Your task to perform on an android device: Is it going to rain tomorrow? Image 0: 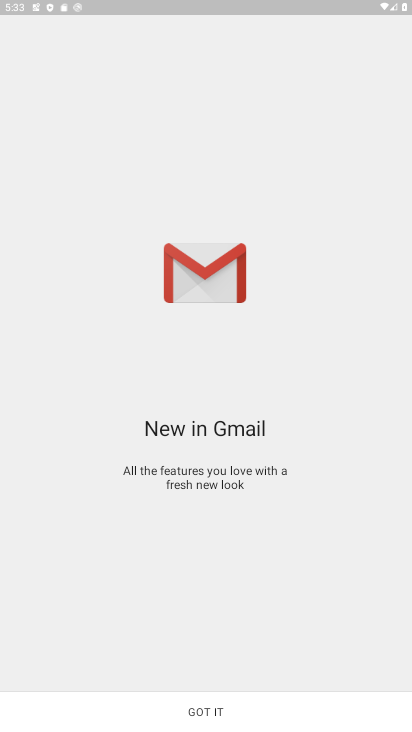
Step 0: press home button
Your task to perform on an android device: Is it going to rain tomorrow? Image 1: 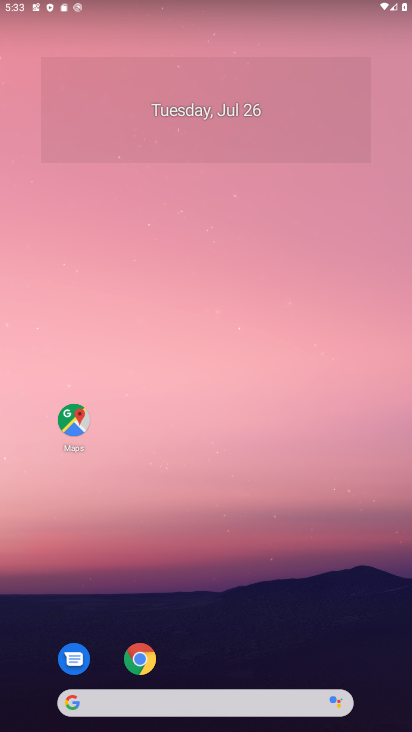
Step 1: click (228, 699)
Your task to perform on an android device: Is it going to rain tomorrow? Image 2: 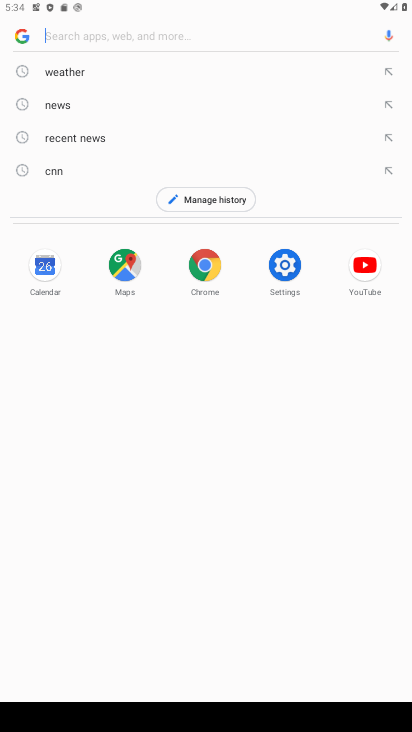
Step 2: type "Is it going to rain tomorrow?"
Your task to perform on an android device: Is it going to rain tomorrow? Image 3: 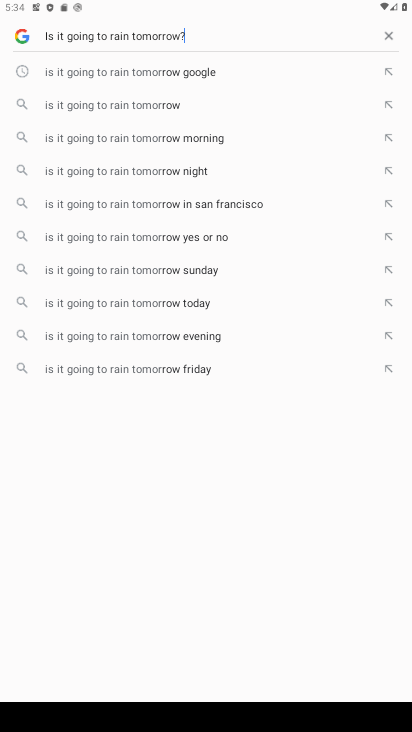
Step 3: press enter
Your task to perform on an android device: Is it going to rain tomorrow? Image 4: 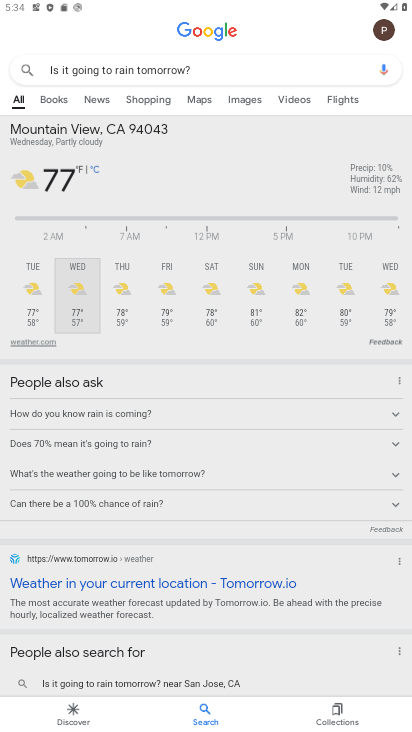
Step 4: task complete